Your task to perform on an android device: Go to calendar. Show me events next week Image 0: 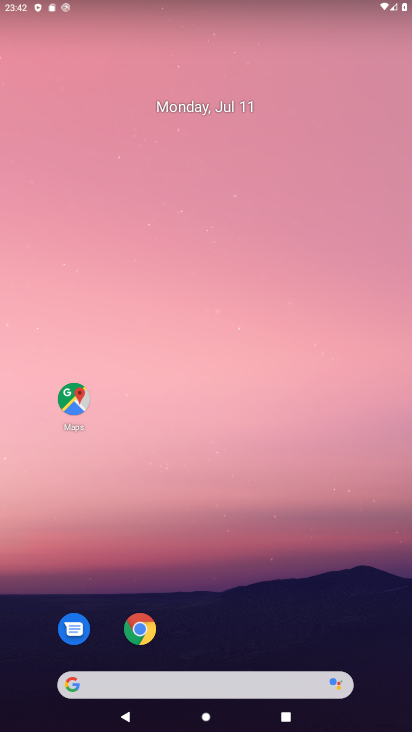
Step 0: drag from (353, 624) to (358, 164)
Your task to perform on an android device: Go to calendar. Show me events next week Image 1: 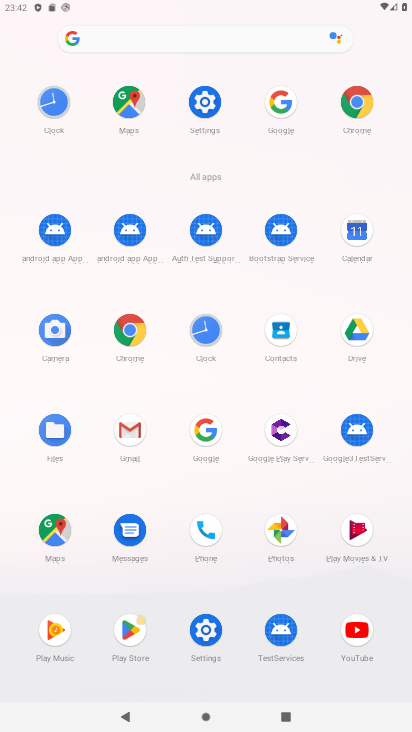
Step 1: click (357, 234)
Your task to perform on an android device: Go to calendar. Show me events next week Image 2: 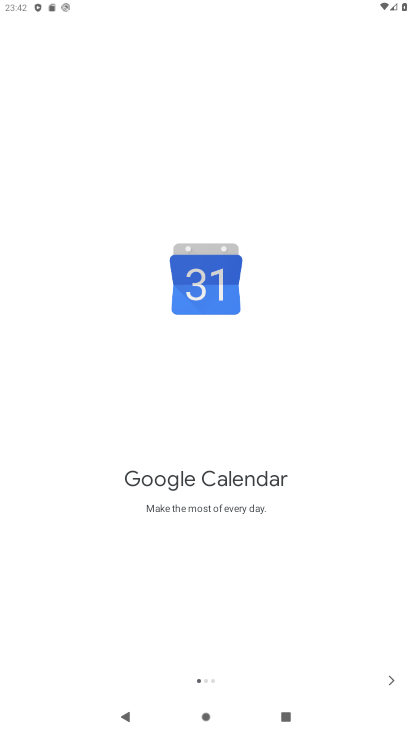
Step 2: click (384, 678)
Your task to perform on an android device: Go to calendar. Show me events next week Image 3: 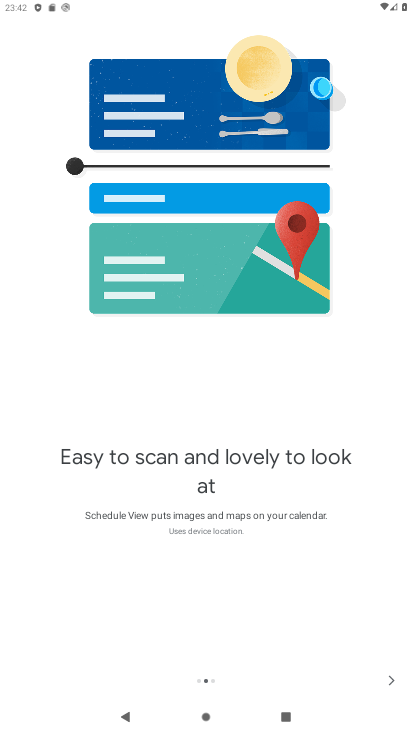
Step 3: click (385, 679)
Your task to perform on an android device: Go to calendar. Show me events next week Image 4: 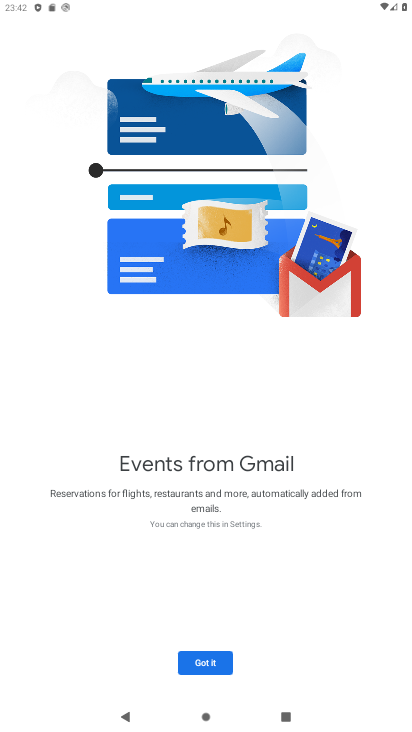
Step 4: click (202, 662)
Your task to perform on an android device: Go to calendar. Show me events next week Image 5: 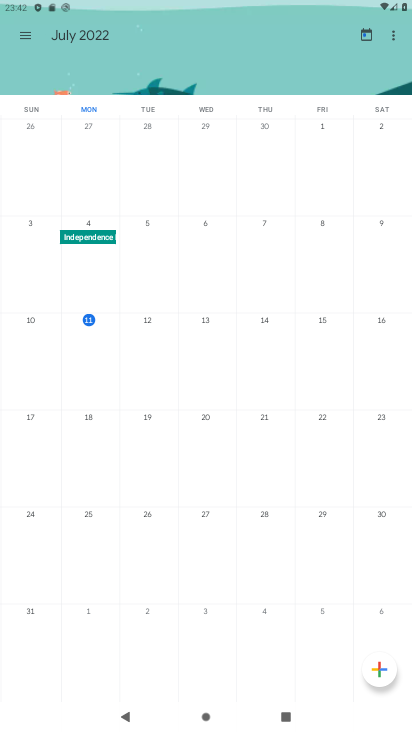
Step 5: click (84, 421)
Your task to perform on an android device: Go to calendar. Show me events next week Image 6: 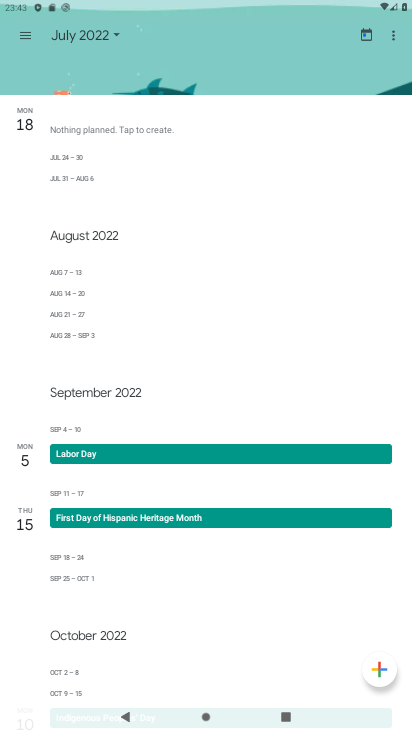
Step 6: task complete